Your task to perform on an android device: When is my next meeting? Image 0: 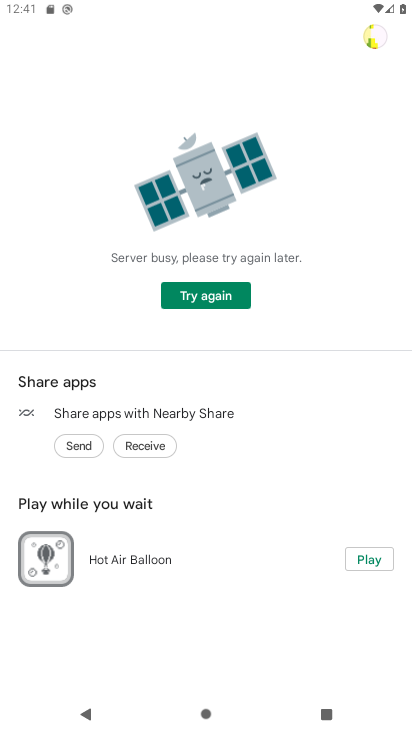
Step 0: press home button
Your task to perform on an android device: When is my next meeting? Image 1: 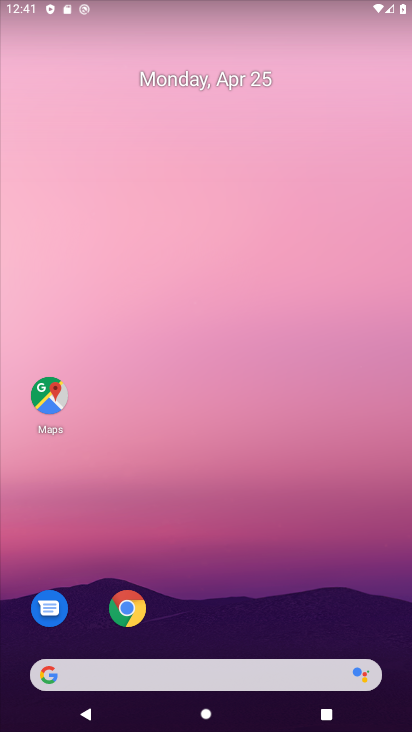
Step 1: drag from (286, 576) to (305, 127)
Your task to perform on an android device: When is my next meeting? Image 2: 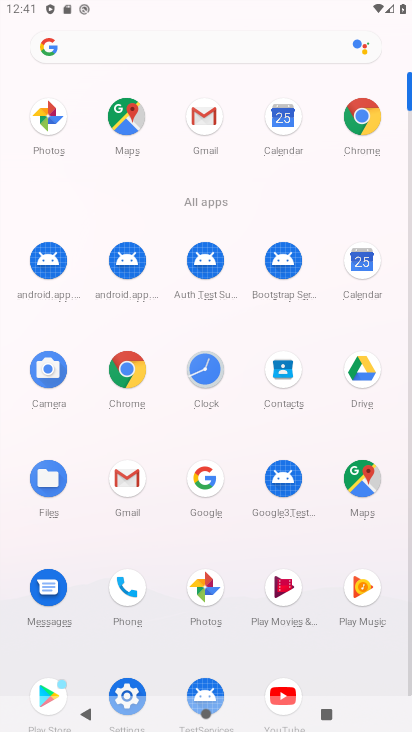
Step 2: click (370, 255)
Your task to perform on an android device: When is my next meeting? Image 3: 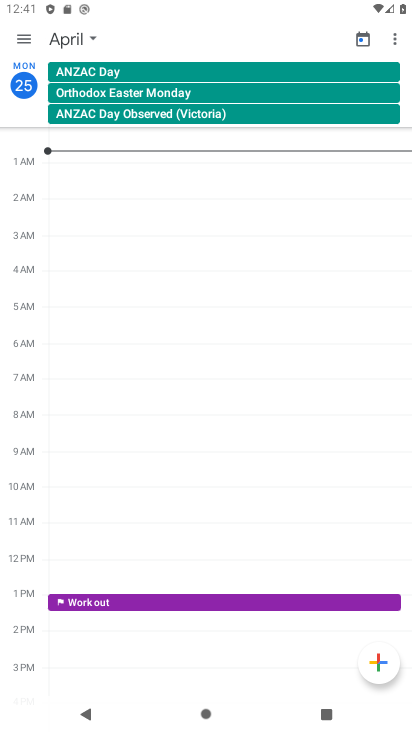
Step 3: click (27, 88)
Your task to perform on an android device: When is my next meeting? Image 4: 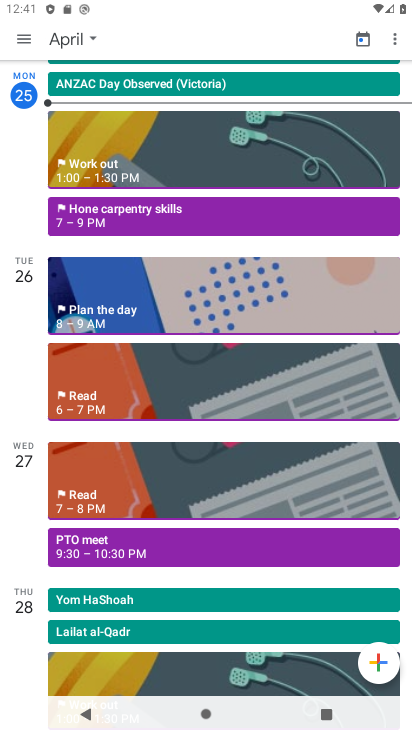
Step 4: task complete